Your task to perform on an android device: toggle translation in the chrome app Image 0: 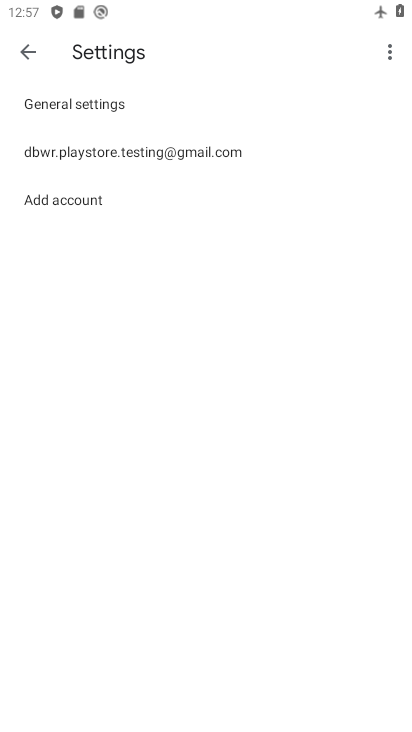
Step 0: press home button
Your task to perform on an android device: toggle translation in the chrome app Image 1: 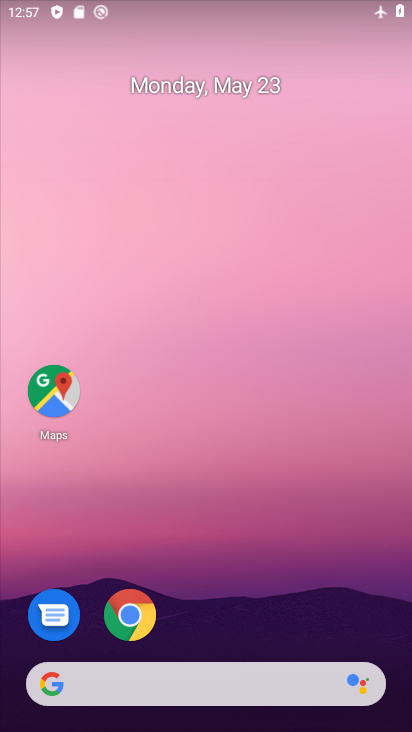
Step 1: click (142, 609)
Your task to perform on an android device: toggle translation in the chrome app Image 2: 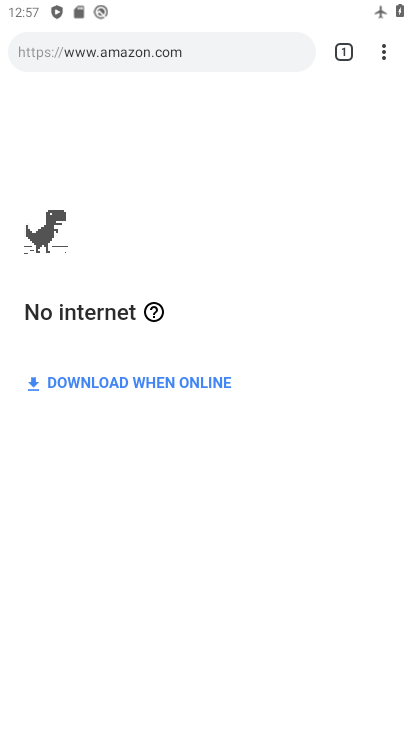
Step 2: click (390, 52)
Your task to perform on an android device: toggle translation in the chrome app Image 3: 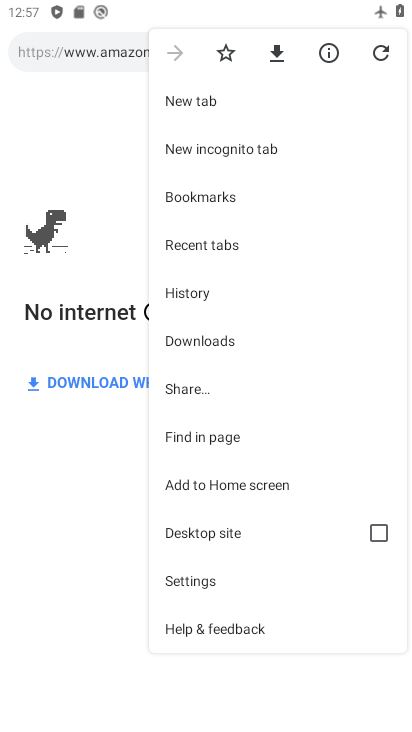
Step 3: click (175, 574)
Your task to perform on an android device: toggle translation in the chrome app Image 4: 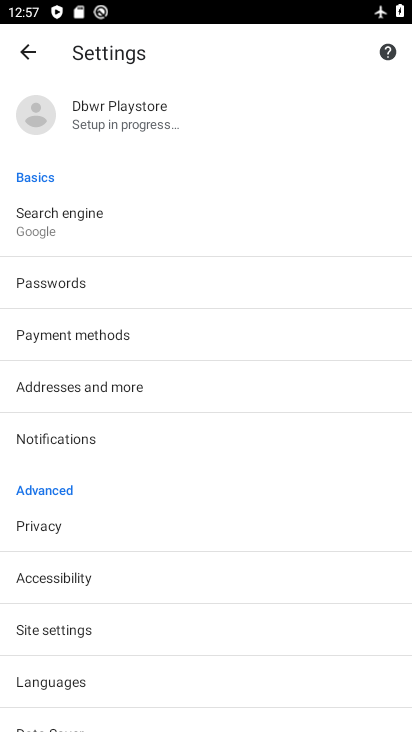
Step 4: click (52, 667)
Your task to perform on an android device: toggle translation in the chrome app Image 5: 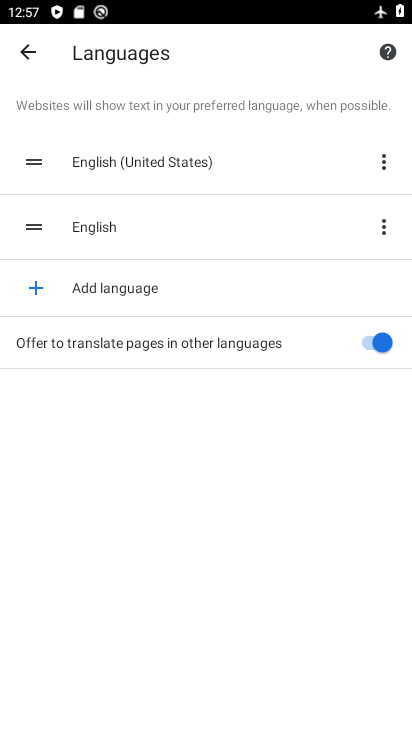
Step 5: click (375, 344)
Your task to perform on an android device: toggle translation in the chrome app Image 6: 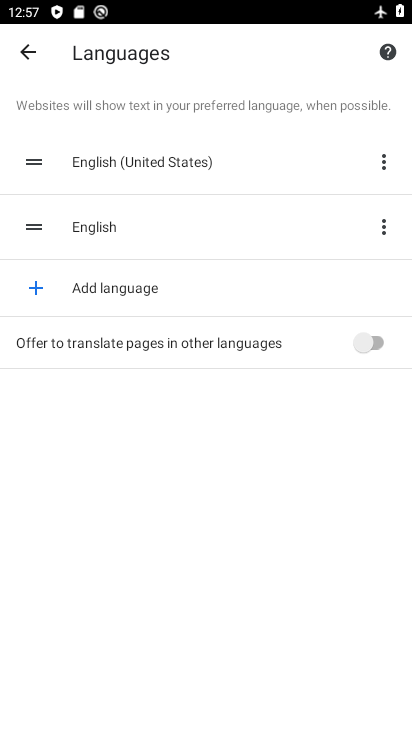
Step 6: task complete